Your task to perform on an android device: Go to network settings Image 0: 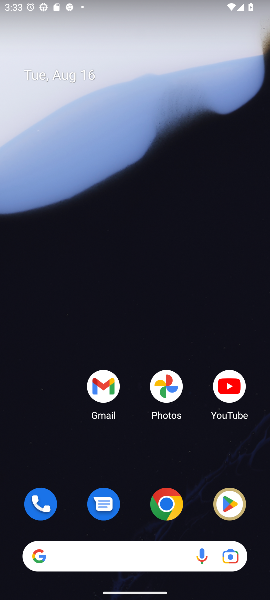
Step 0: drag from (136, 480) to (91, 79)
Your task to perform on an android device: Go to network settings Image 1: 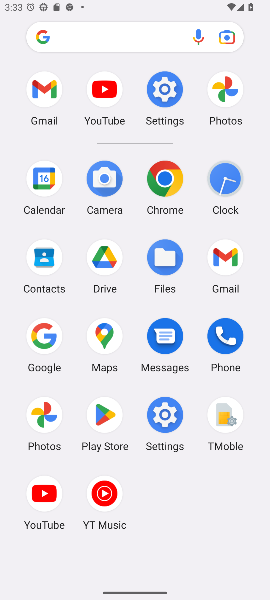
Step 1: click (163, 84)
Your task to perform on an android device: Go to network settings Image 2: 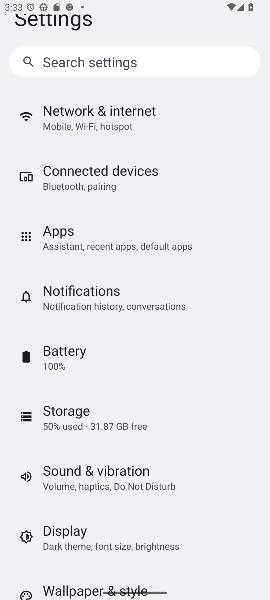
Step 2: click (83, 107)
Your task to perform on an android device: Go to network settings Image 3: 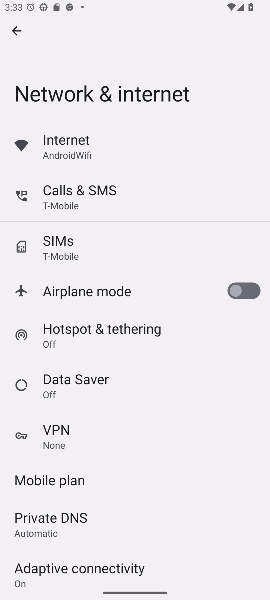
Step 3: task complete